Your task to perform on an android device: Go to battery settings Image 0: 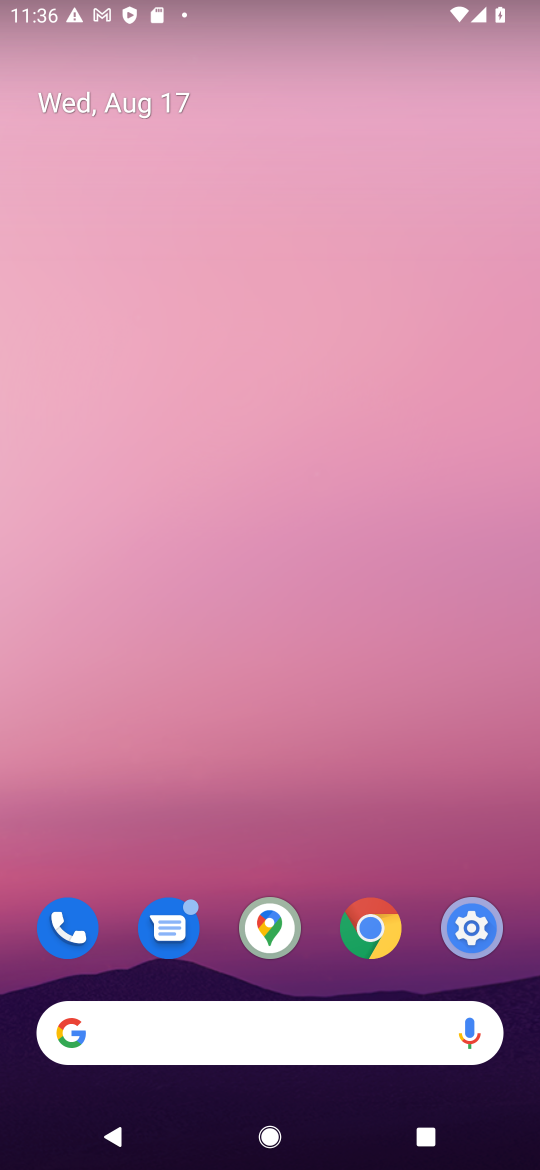
Step 0: click (451, 924)
Your task to perform on an android device: Go to battery settings Image 1: 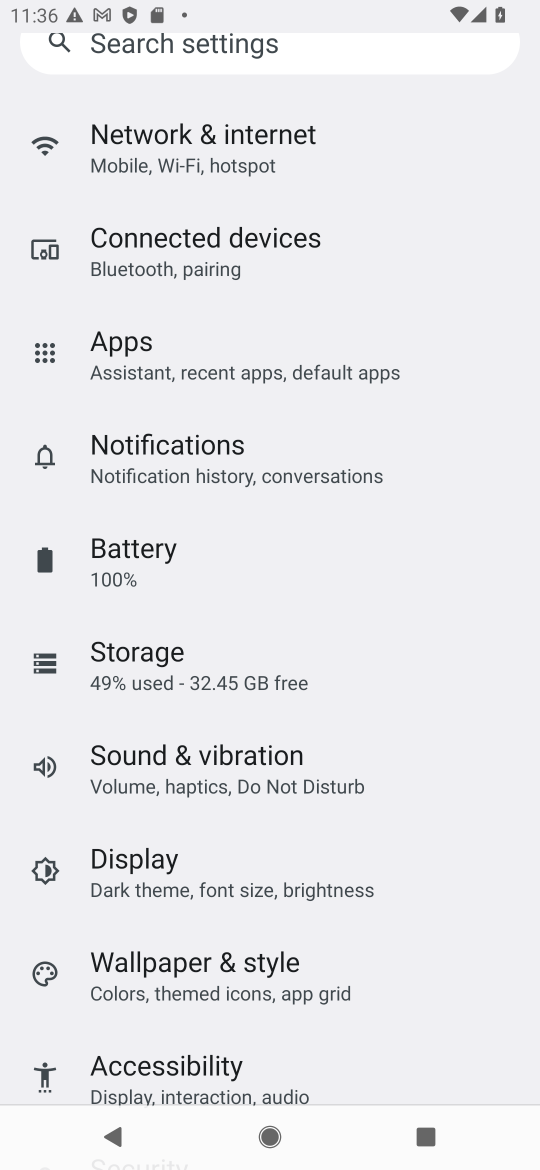
Step 1: click (166, 578)
Your task to perform on an android device: Go to battery settings Image 2: 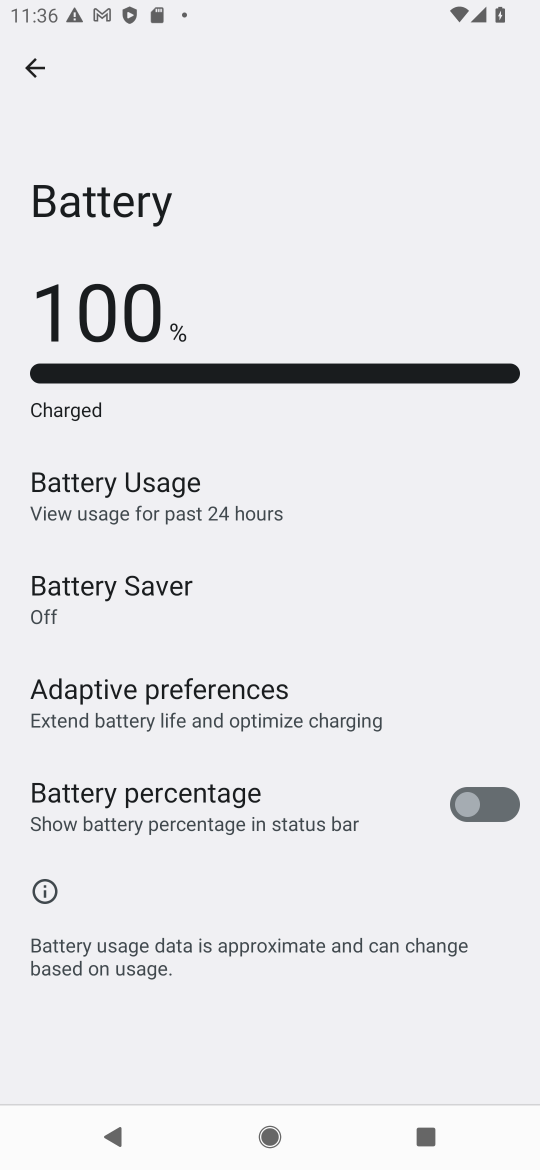
Step 2: task complete